Your task to perform on an android device: Go to internet settings Image 0: 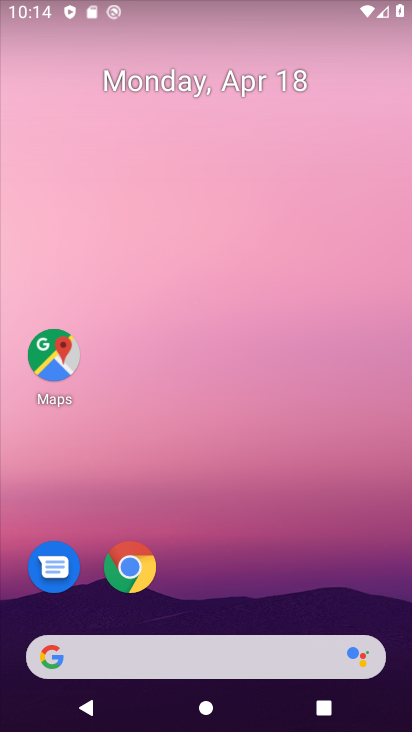
Step 0: drag from (223, 533) to (225, 142)
Your task to perform on an android device: Go to internet settings Image 1: 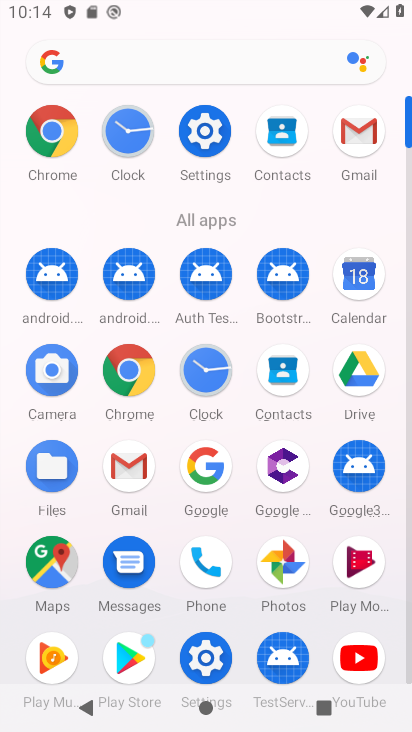
Step 1: click (203, 133)
Your task to perform on an android device: Go to internet settings Image 2: 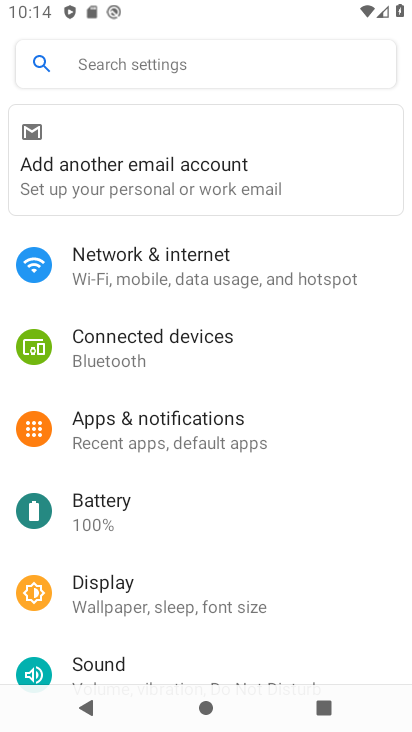
Step 2: click (160, 266)
Your task to perform on an android device: Go to internet settings Image 3: 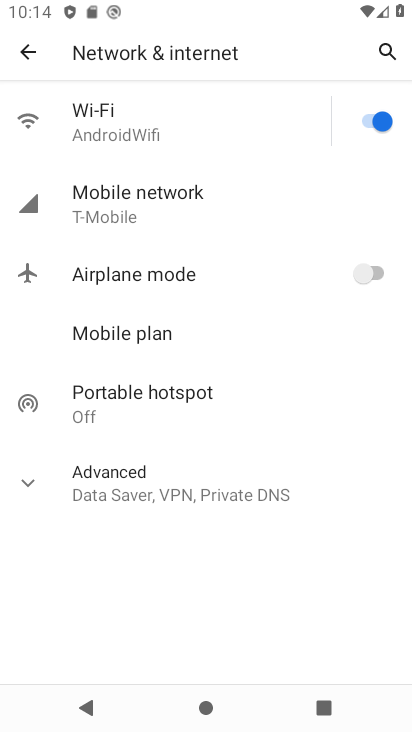
Step 3: task complete